Your task to perform on an android device: Open network settings Image 0: 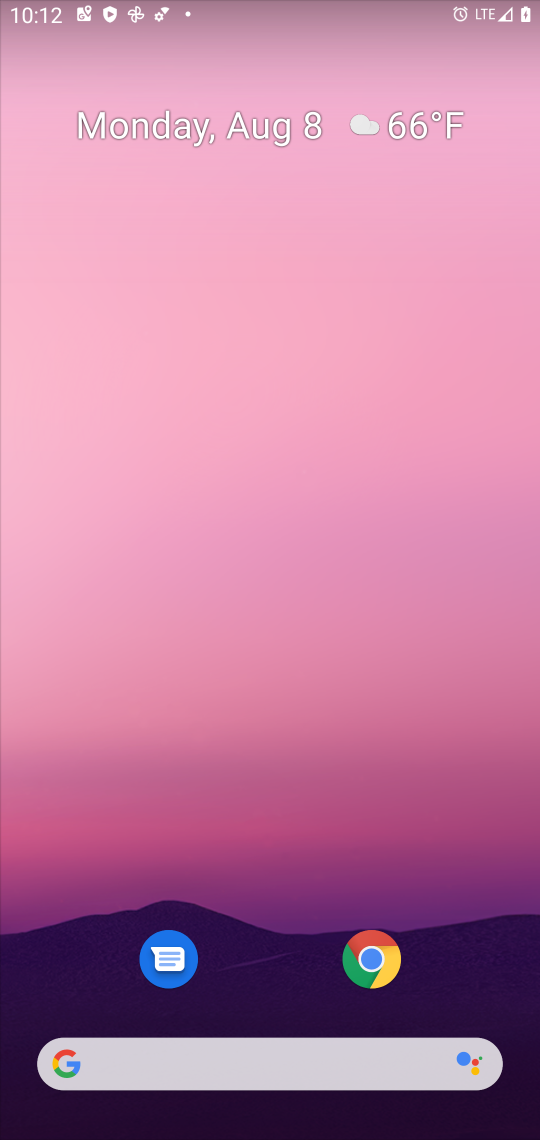
Step 0: drag from (463, 903) to (210, 24)
Your task to perform on an android device: Open network settings Image 1: 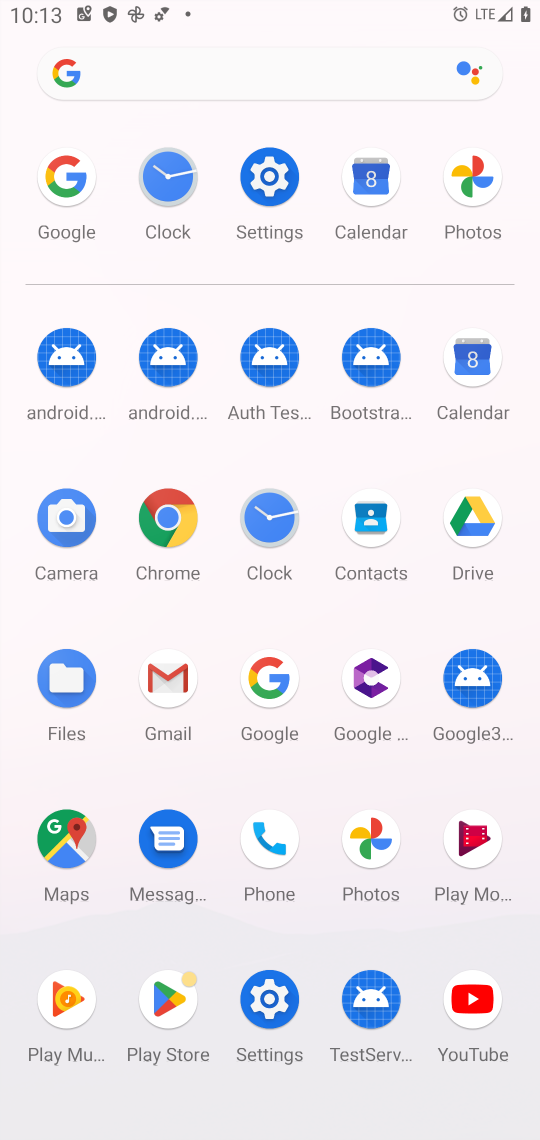
Step 1: click (252, 190)
Your task to perform on an android device: Open network settings Image 2: 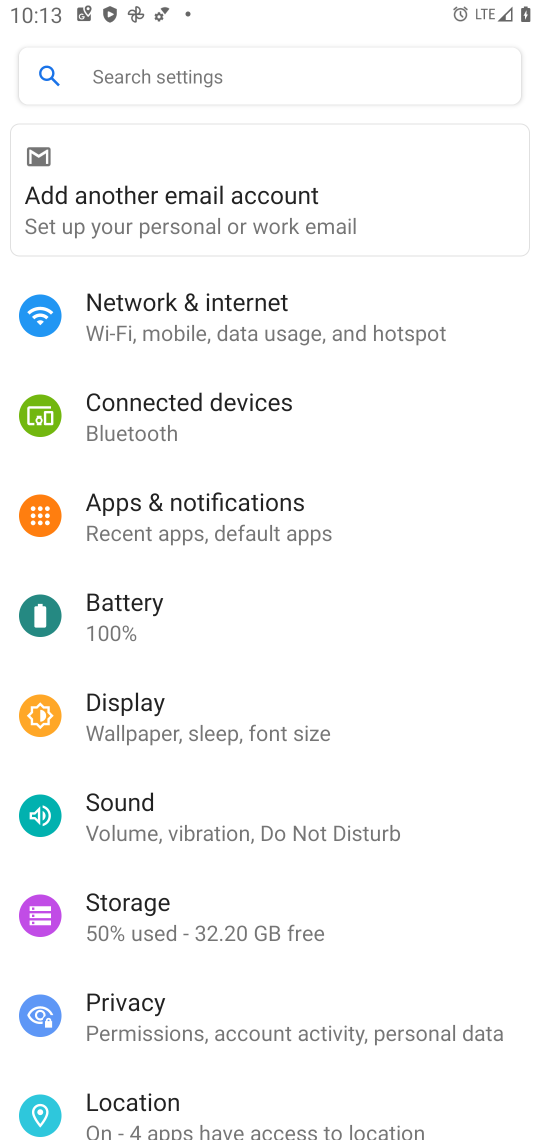
Step 2: click (88, 311)
Your task to perform on an android device: Open network settings Image 3: 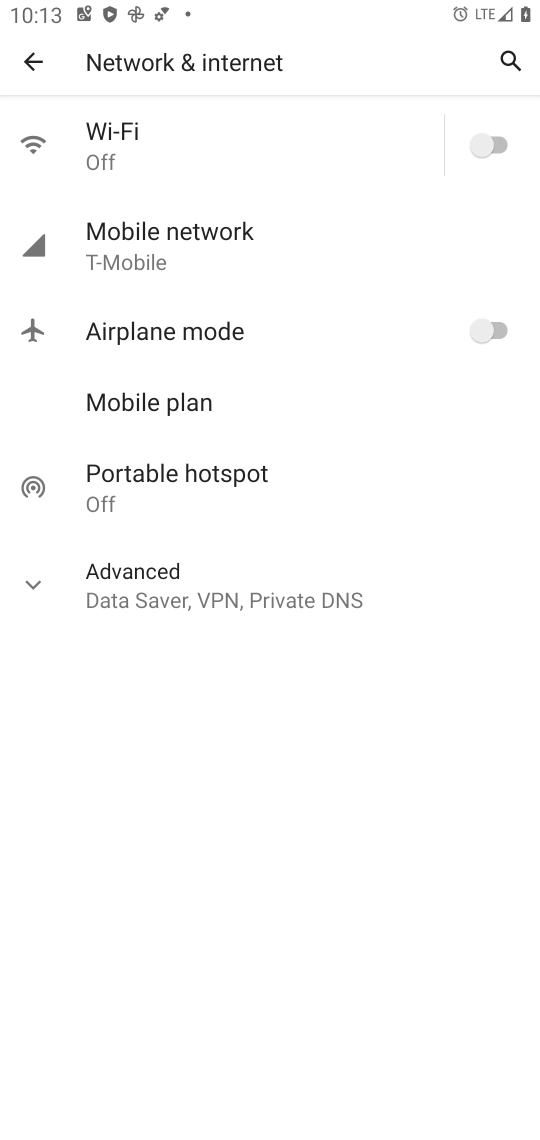
Step 3: task complete